Your task to perform on an android device: Open the web browser Image 0: 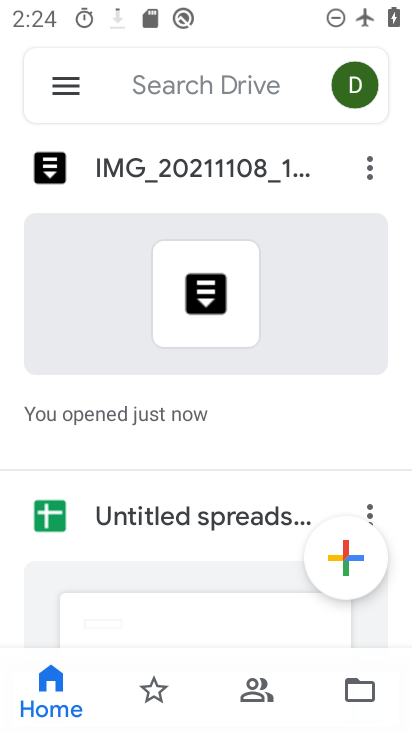
Step 0: drag from (140, 600) to (259, 223)
Your task to perform on an android device: Open the web browser Image 1: 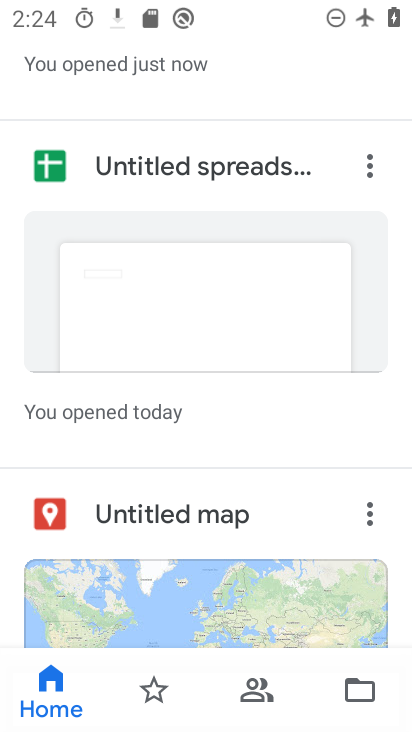
Step 1: drag from (244, 535) to (298, 190)
Your task to perform on an android device: Open the web browser Image 2: 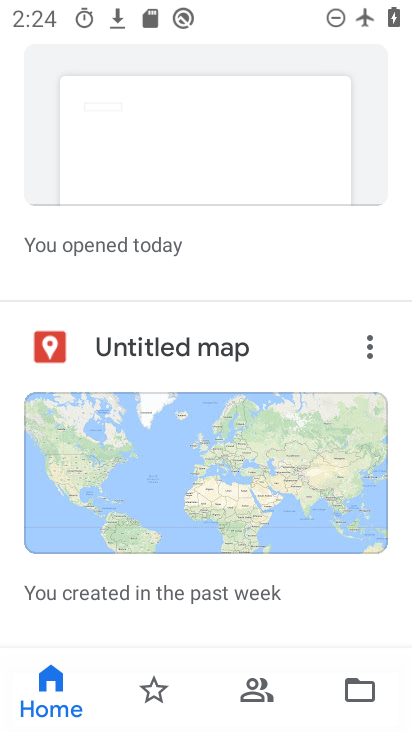
Step 2: drag from (254, 313) to (289, 567)
Your task to perform on an android device: Open the web browser Image 3: 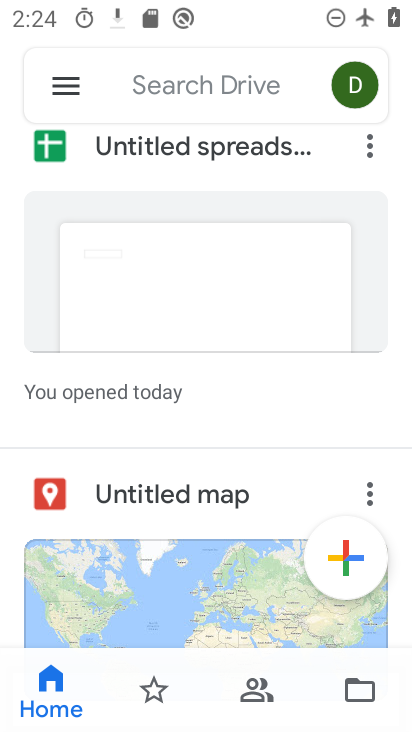
Step 3: drag from (260, 548) to (294, 254)
Your task to perform on an android device: Open the web browser Image 4: 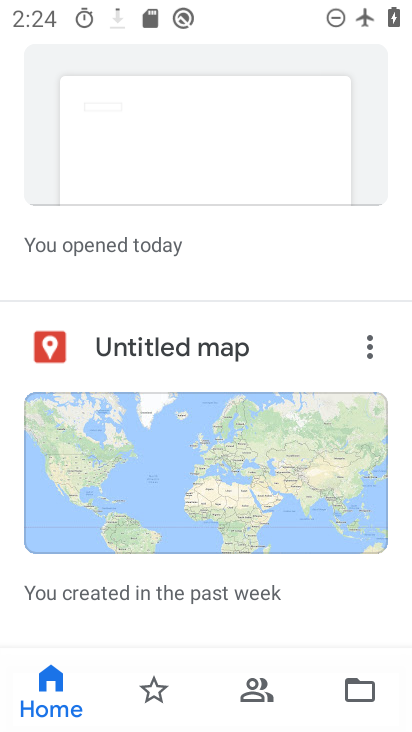
Step 4: drag from (234, 307) to (242, 523)
Your task to perform on an android device: Open the web browser Image 5: 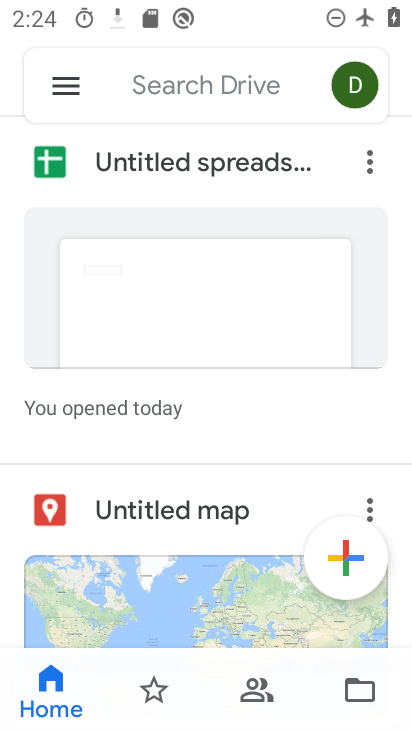
Step 5: drag from (242, 523) to (292, 186)
Your task to perform on an android device: Open the web browser Image 6: 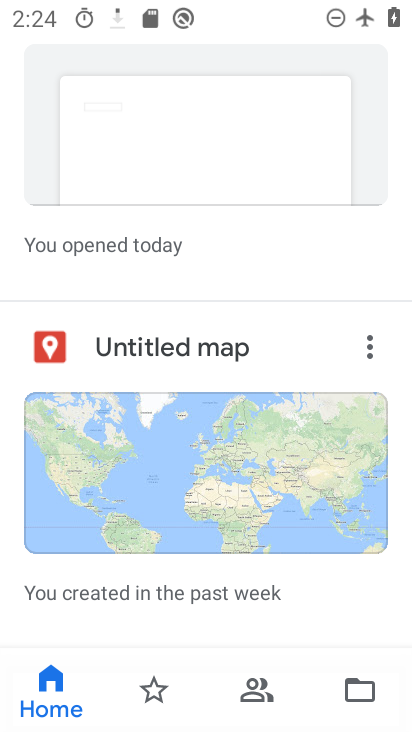
Step 6: drag from (294, 164) to (279, 562)
Your task to perform on an android device: Open the web browser Image 7: 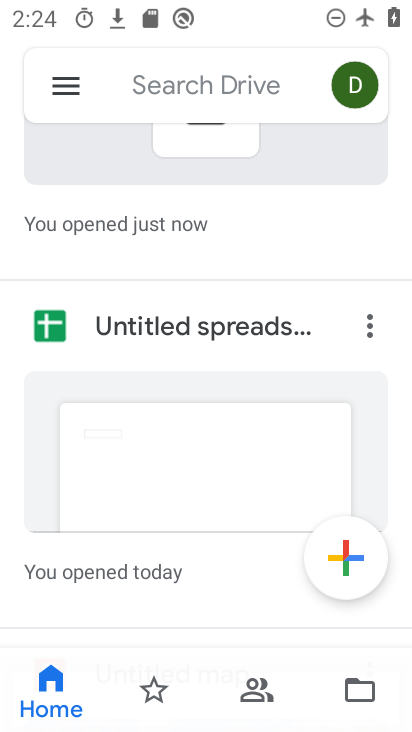
Step 7: drag from (232, 266) to (223, 524)
Your task to perform on an android device: Open the web browser Image 8: 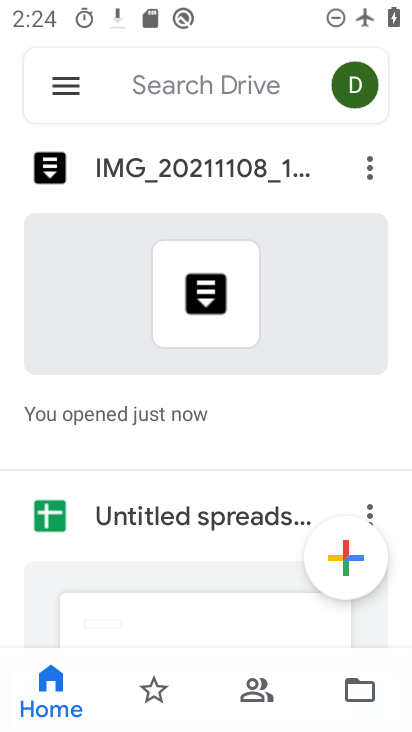
Step 8: drag from (249, 152) to (257, 522)
Your task to perform on an android device: Open the web browser Image 9: 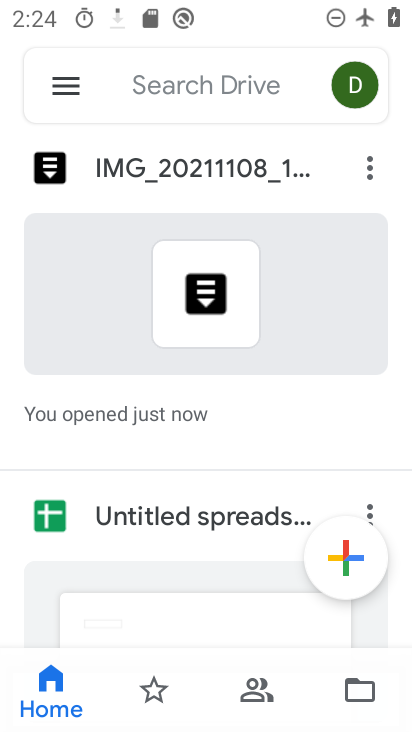
Step 9: drag from (255, 543) to (267, 71)
Your task to perform on an android device: Open the web browser Image 10: 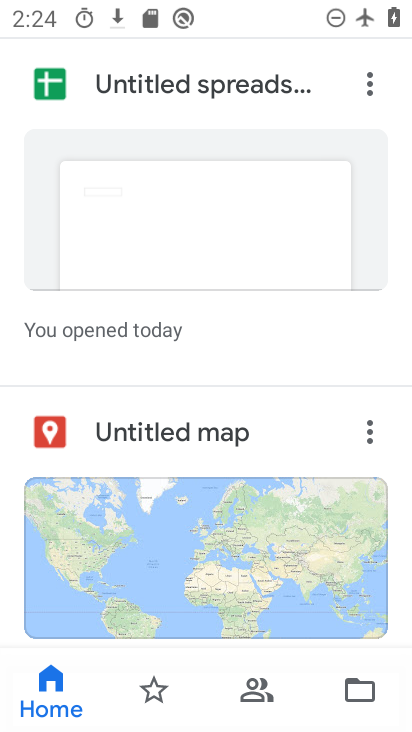
Step 10: drag from (165, 566) to (236, 138)
Your task to perform on an android device: Open the web browser Image 11: 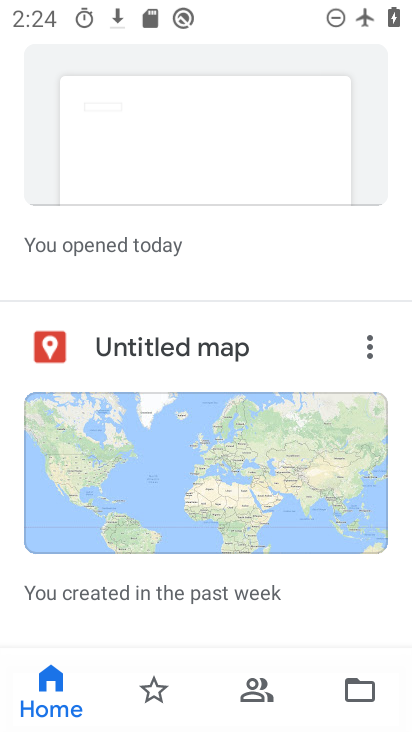
Step 11: drag from (281, 620) to (334, 189)
Your task to perform on an android device: Open the web browser Image 12: 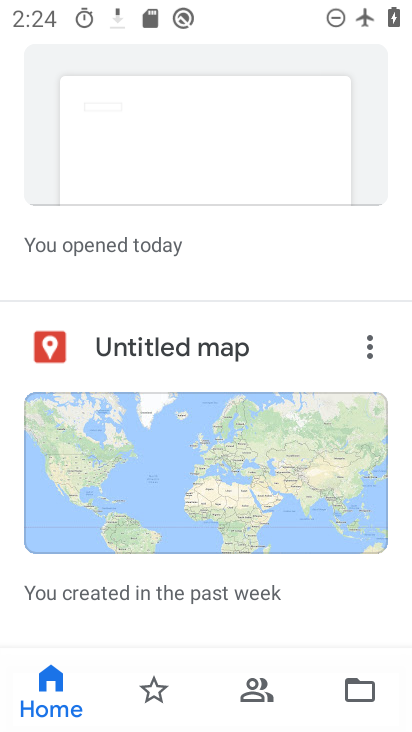
Step 12: drag from (163, 580) to (254, 178)
Your task to perform on an android device: Open the web browser Image 13: 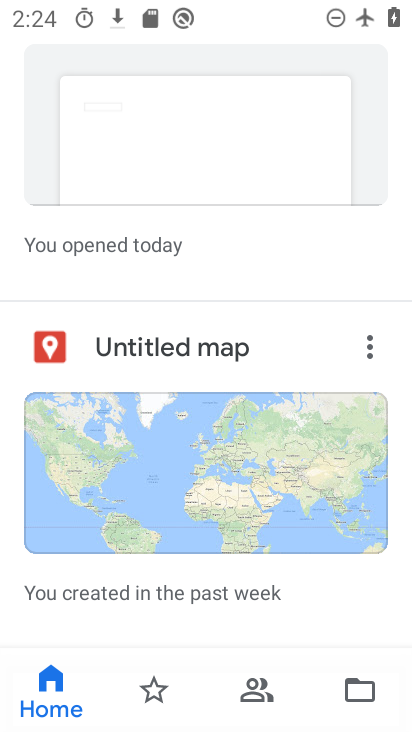
Step 13: drag from (298, 622) to (299, 210)
Your task to perform on an android device: Open the web browser Image 14: 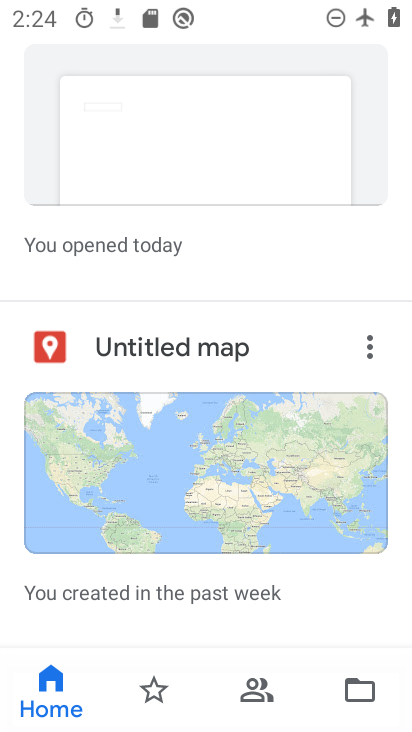
Step 14: drag from (118, 266) to (302, 710)
Your task to perform on an android device: Open the web browser Image 15: 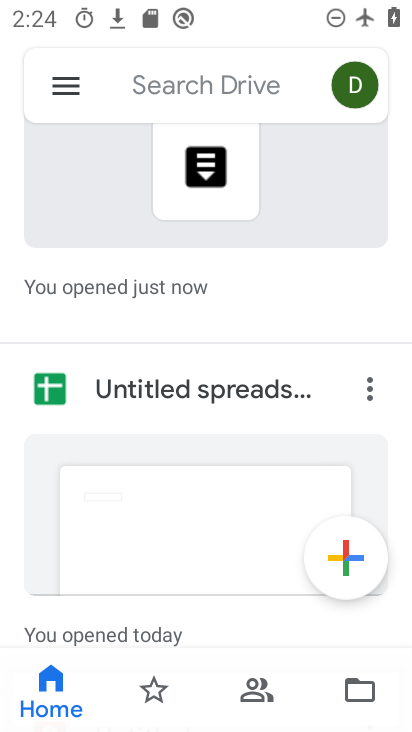
Step 15: drag from (194, 240) to (267, 618)
Your task to perform on an android device: Open the web browser Image 16: 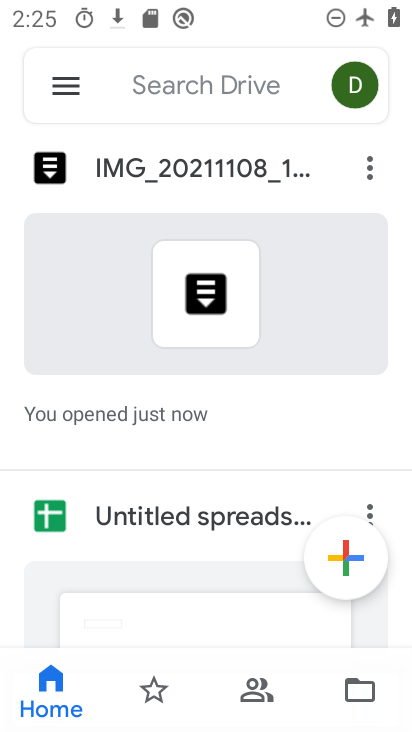
Step 16: drag from (241, 307) to (257, 583)
Your task to perform on an android device: Open the web browser Image 17: 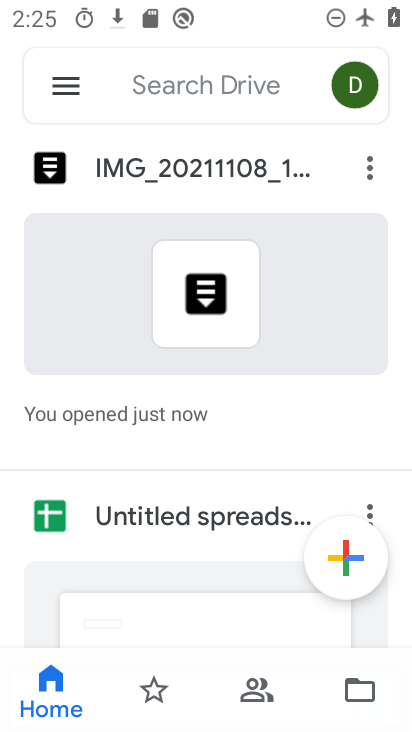
Step 17: drag from (216, 455) to (339, 696)
Your task to perform on an android device: Open the web browser Image 18: 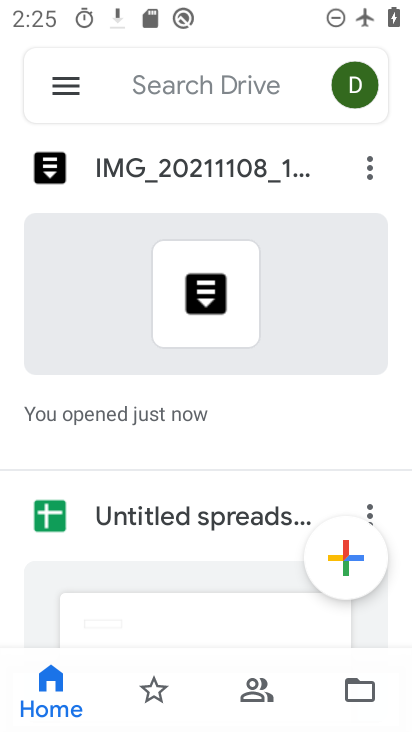
Step 18: press home button
Your task to perform on an android device: Open the web browser Image 19: 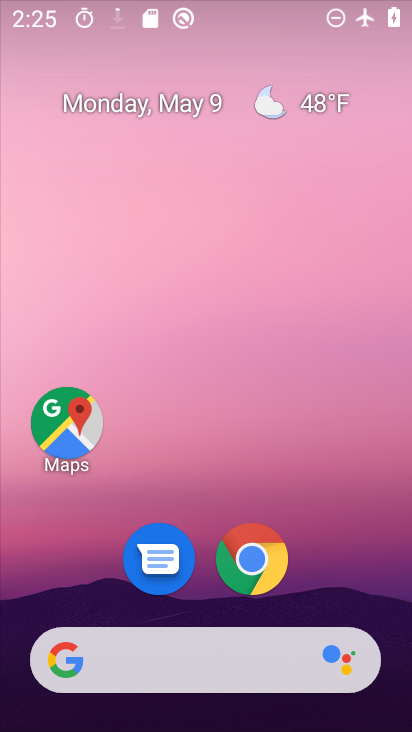
Step 19: drag from (208, 583) to (223, 238)
Your task to perform on an android device: Open the web browser Image 20: 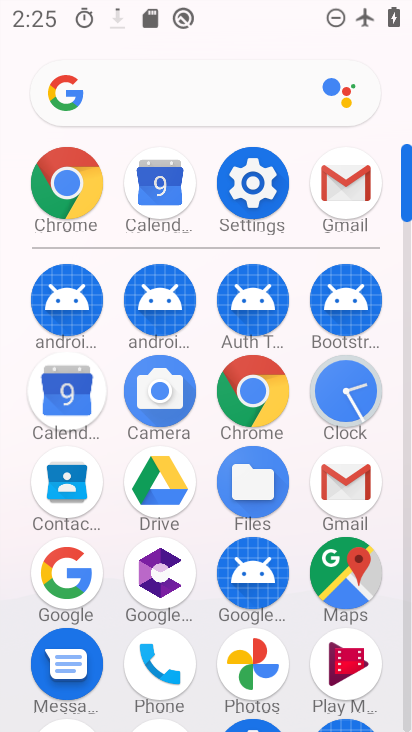
Step 20: click (51, 133)
Your task to perform on an android device: Open the web browser Image 21: 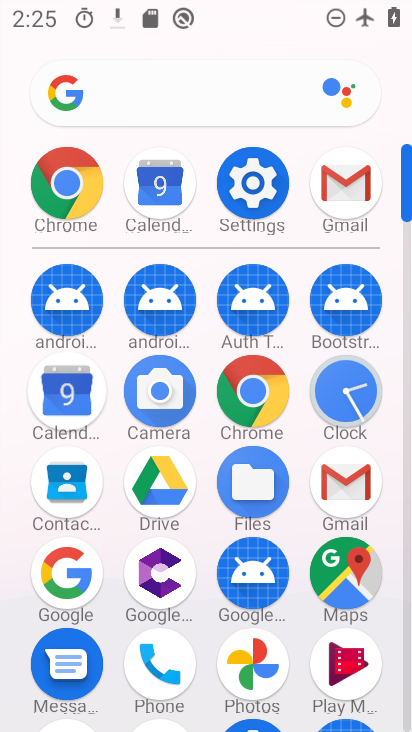
Step 21: click (56, 183)
Your task to perform on an android device: Open the web browser Image 22: 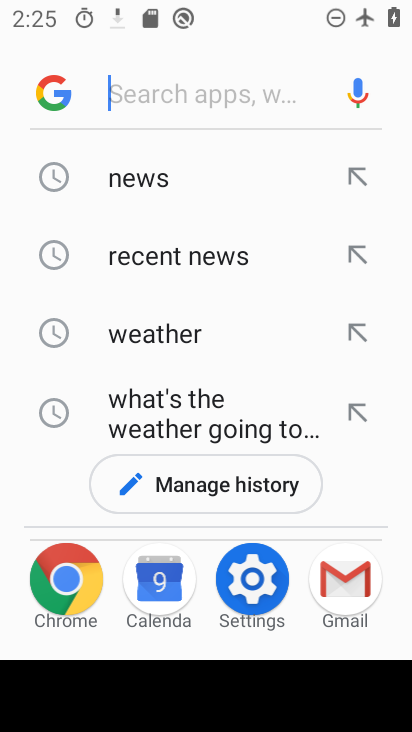
Step 22: click (181, 184)
Your task to perform on an android device: Open the web browser Image 23: 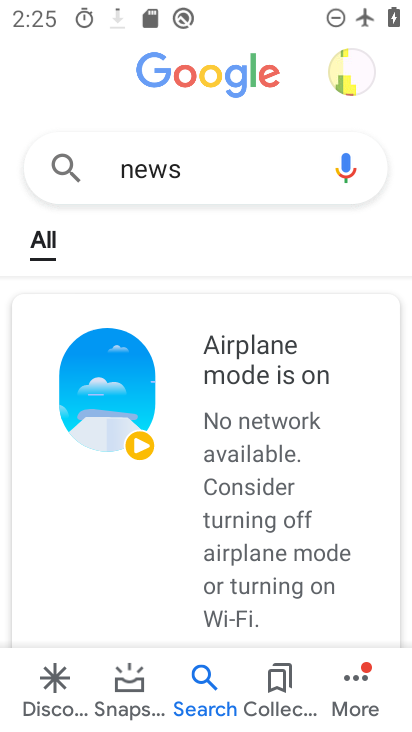
Step 23: task complete